Your task to perform on an android device: star an email in the gmail app Image 0: 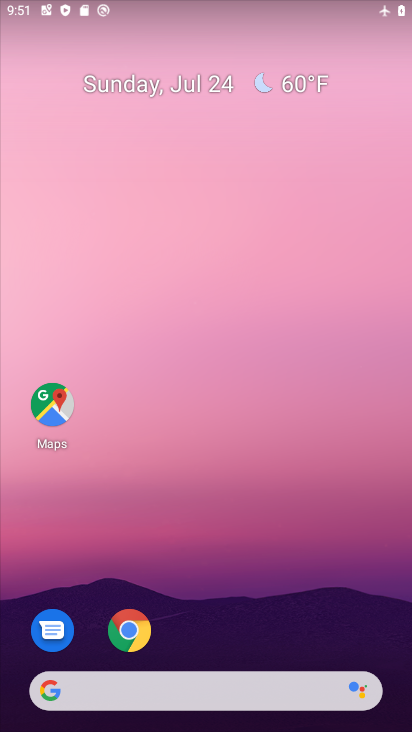
Step 0: drag from (228, 676) to (290, 146)
Your task to perform on an android device: star an email in the gmail app Image 1: 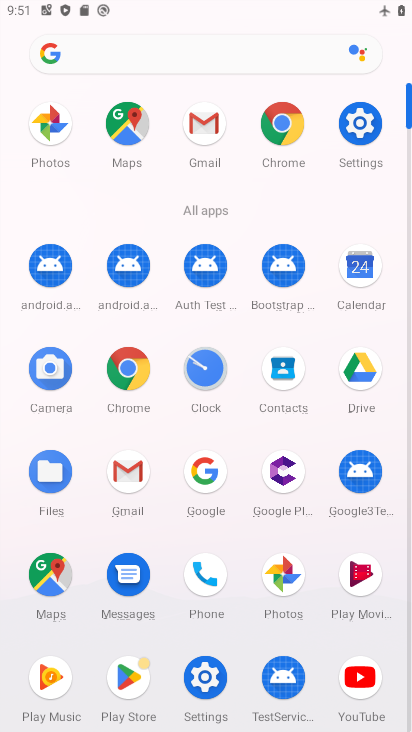
Step 1: click (123, 475)
Your task to perform on an android device: star an email in the gmail app Image 2: 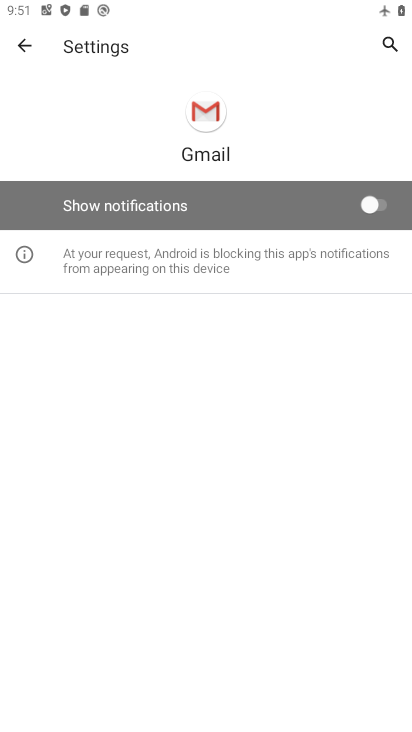
Step 2: click (30, 50)
Your task to perform on an android device: star an email in the gmail app Image 3: 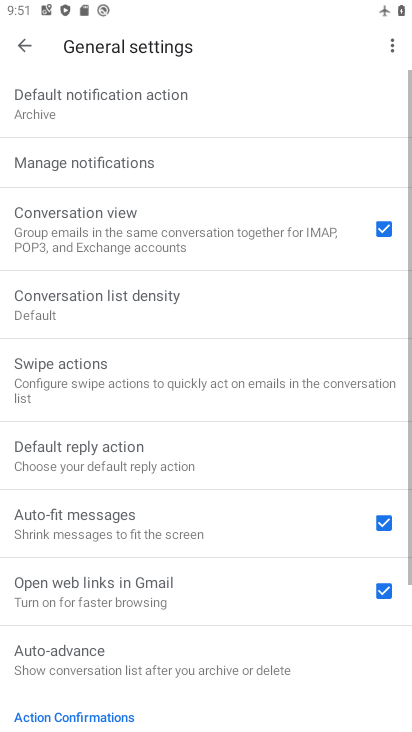
Step 3: click (29, 48)
Your task to perform on an android device: star an email in the gmail app Image 4: 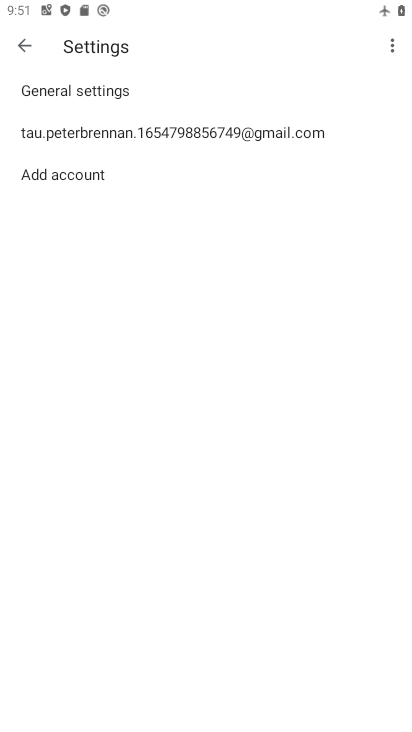
Step 4: click (32, 45)
Your task to perform on an android device: star an email in the gmail app Image 5: 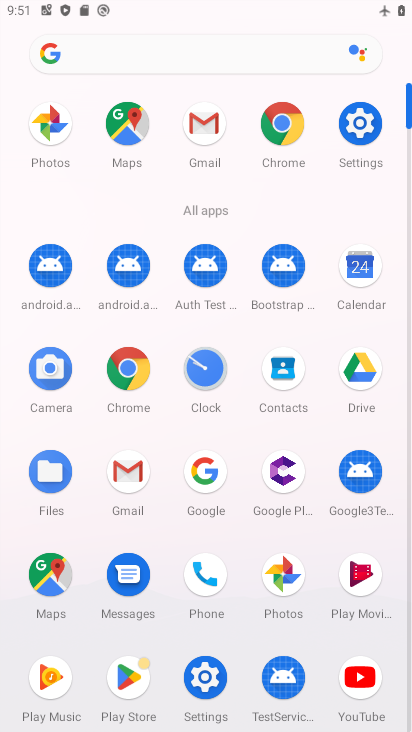
Step 5: click (138, 490)
Your task to perform on an android device: star an email in the gmail app Image 6: 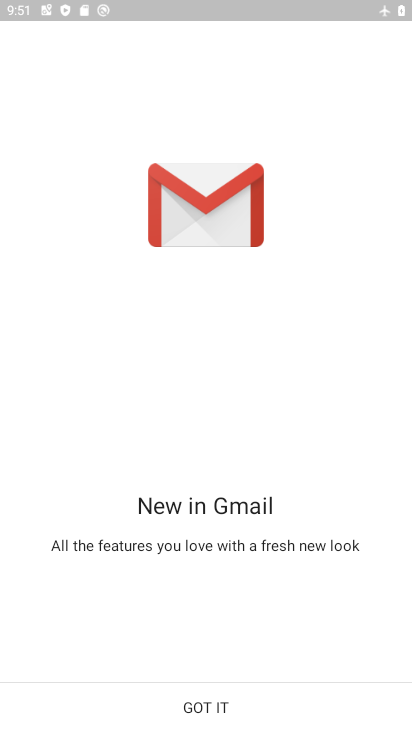
Step 6: click (213, 713)
Your task to perform on an android device: star an email in the gmail app Image 7: 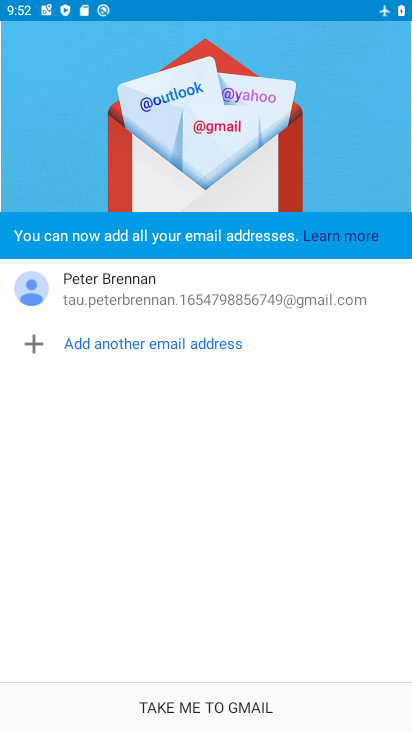
Step 7: click (265, 714)
Your task to perform on an android device: star an email in the gmail app Image 8: 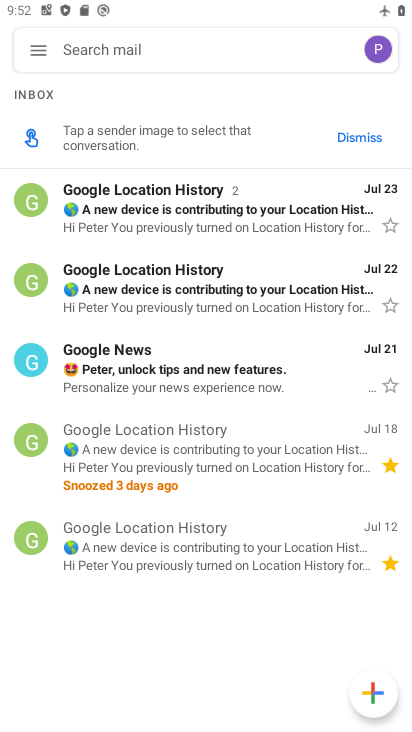
Step 8: click (391, 386)
Your task to perform on an android device: star an email in the gmail app Image 9: 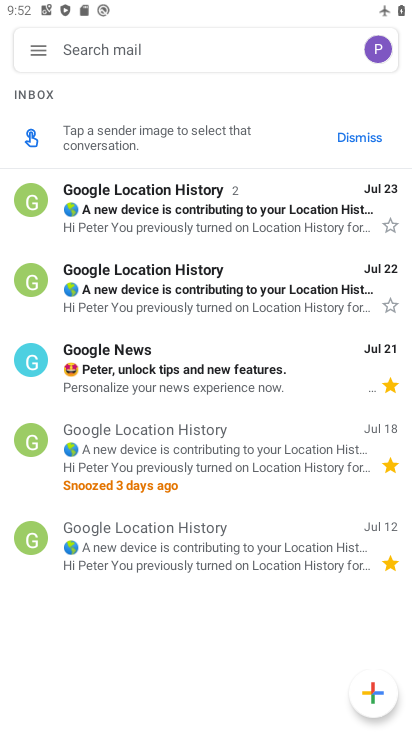
Step 9: task complete